Your task to perform on an android device: open chrome privacy settings Image 0: 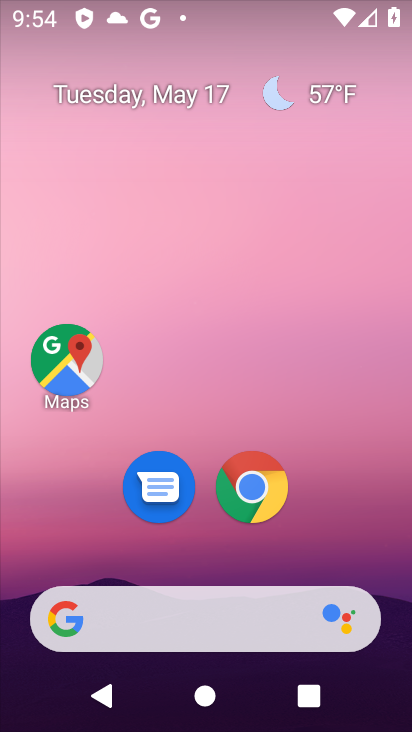
Step 0: click (245, 480)
Your task to perform on an android device: open chrome privacy settings Image 1: 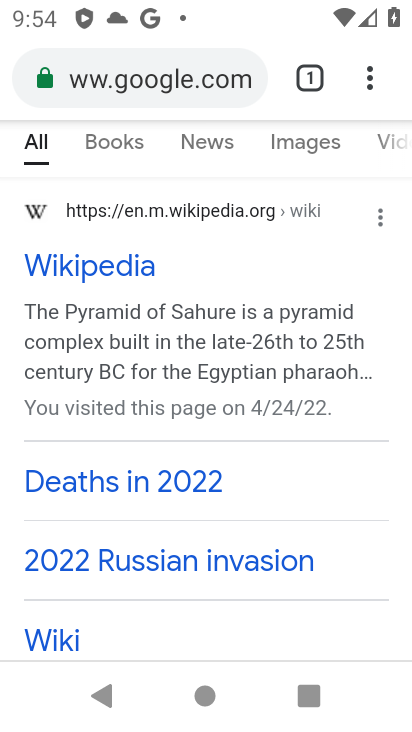
Step 1: click (372, 74)
Your task to perform on an android device: open chrome privacy settings Image 2: 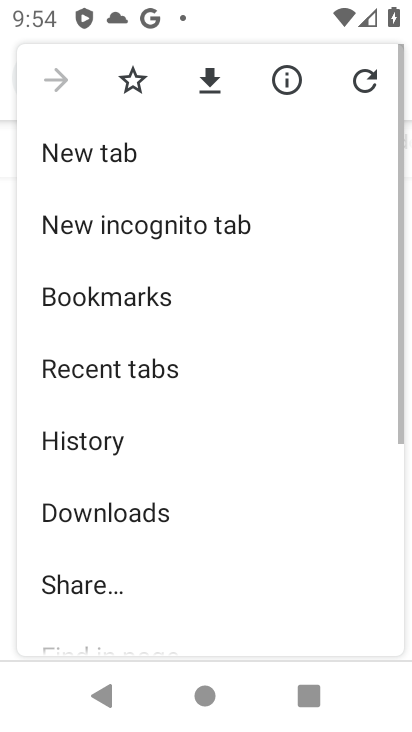
Step 2: drag from (224, 583) to (181, 392)
Your task to perform on an android device: open chrome privacy settings Image 3: 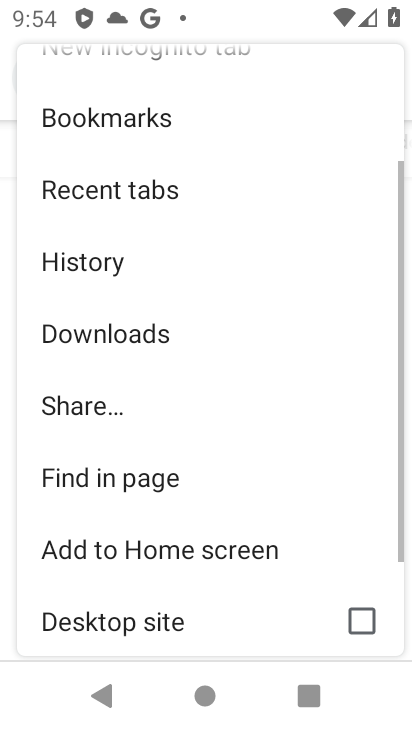
Step 3: drag from (258, 612) to (217, 470)
Your task to perform on an android device: open chrome privacy settings Image 4: 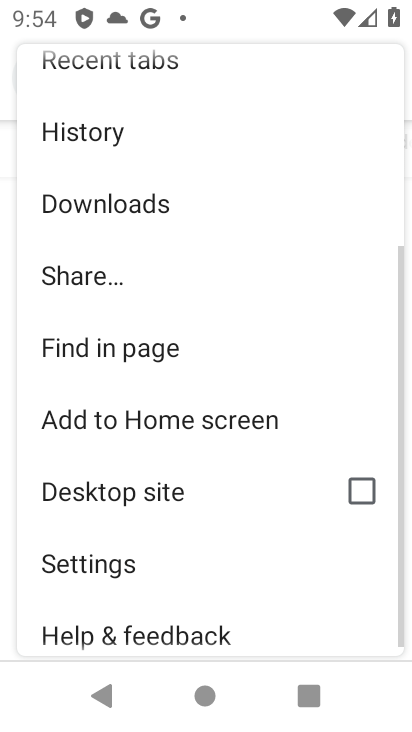
Step 4: drag from (295, 624) to (260, 407)
Your task to perform on an android device: open chrome privacy settings Image 5: 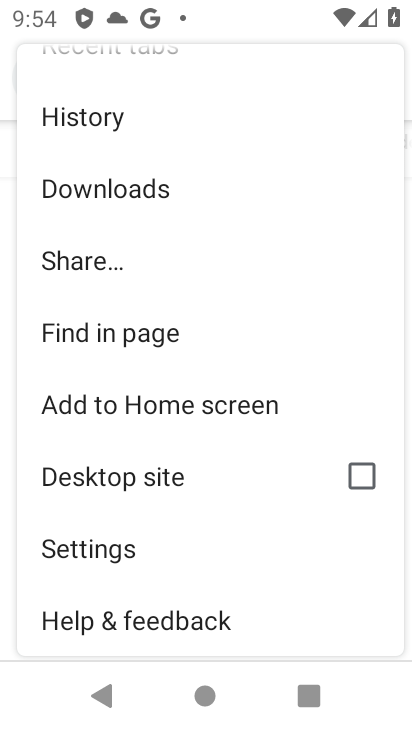
Step 5: click (110, 548)
Your task to perform on an android device: open chrome privacy settings Image 6: 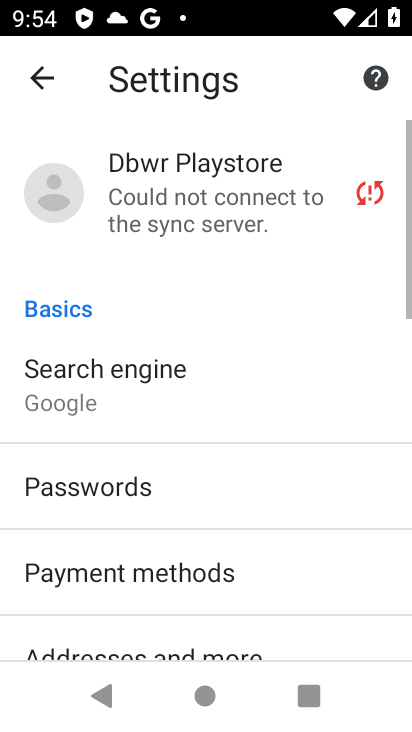
Step 6: drag from (329, 603) to (288, 370)
Your task to perform on an android device: open chrome privacy settings Image 7: 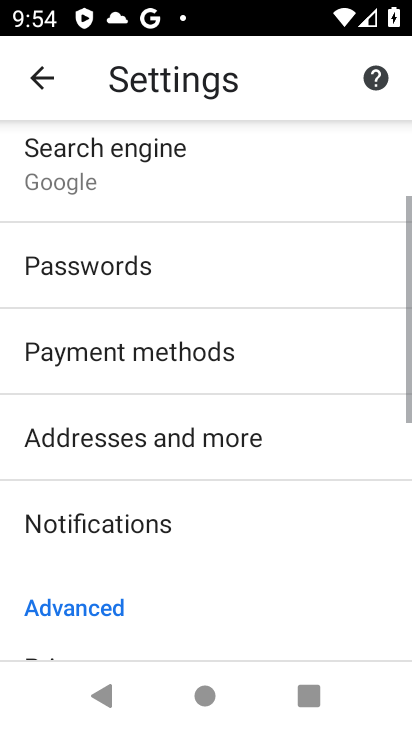
Step 7: drag from (248, 534) to (246, 328)
Your task to perform on an android device: open chrome privacy settings Image 8: 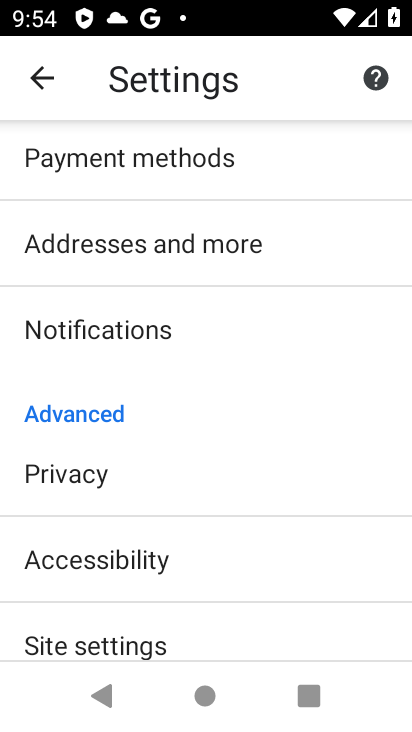
Step 8: click (71, 459)
Your task to perform on an android device: open chrome privacy settings Image 9: 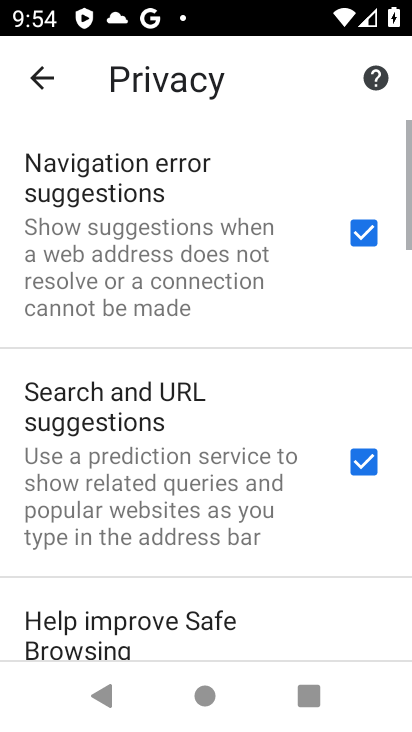
Step 9: task complete